Your task to perform on an android device: Go to sound settings Image 0: 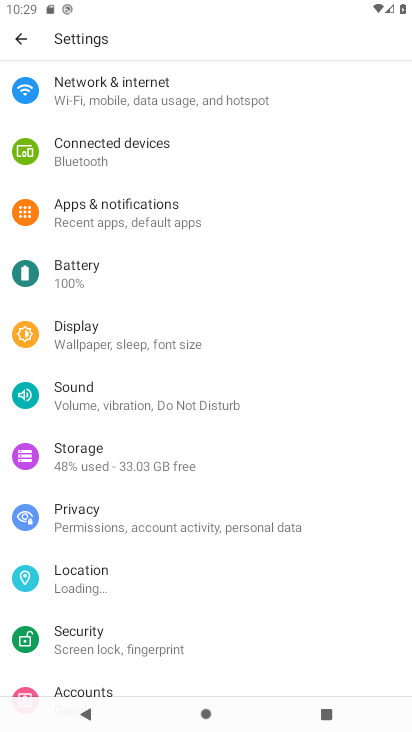
Step 0: press back button
Your task to perform on an android device: Go to sound settings Image 1: 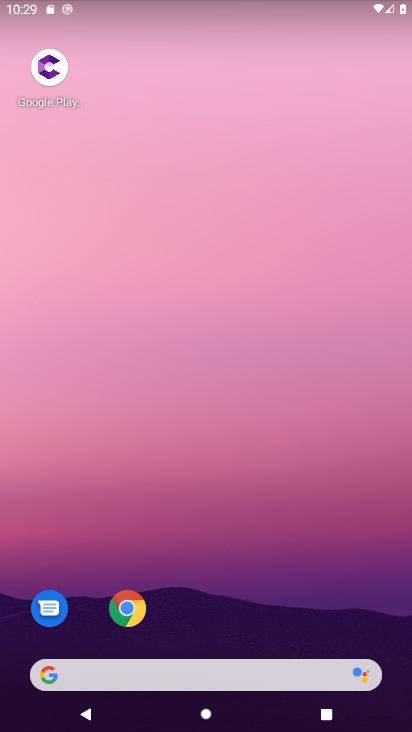
Step 1: drag from (261, 601) to (176, 150)
Your task to perform on an android device: Go to sound settings Image 2: 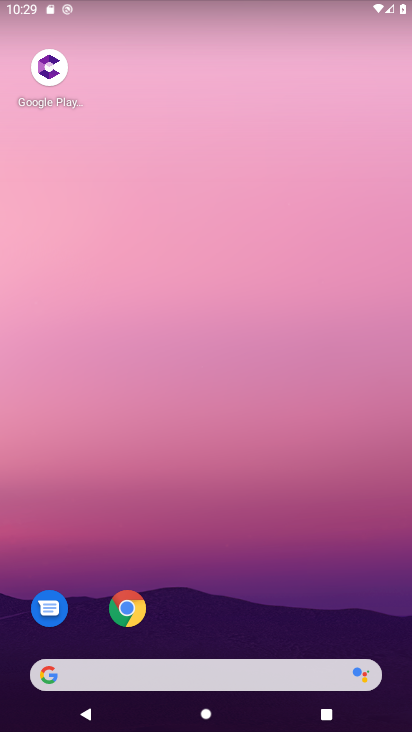
Step 2: drag from (235, 501) to (132, 12)
Your task to perform on an android device: Go to sound settings Image 3: 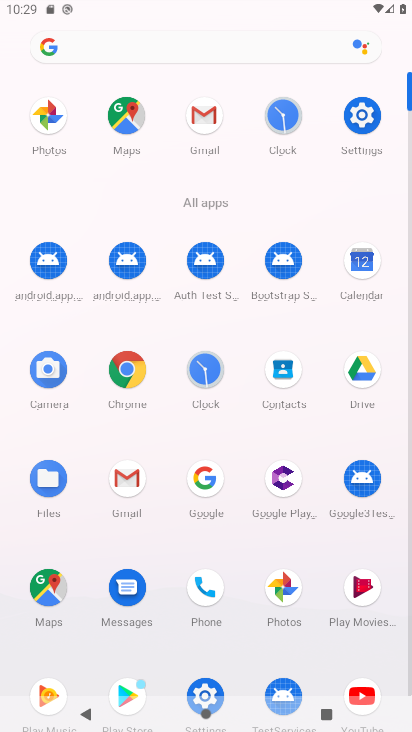
Step 3: drag from (163, 199) to (261, 37)
Your task to perform on an android device: Go to sound settings Image 4: 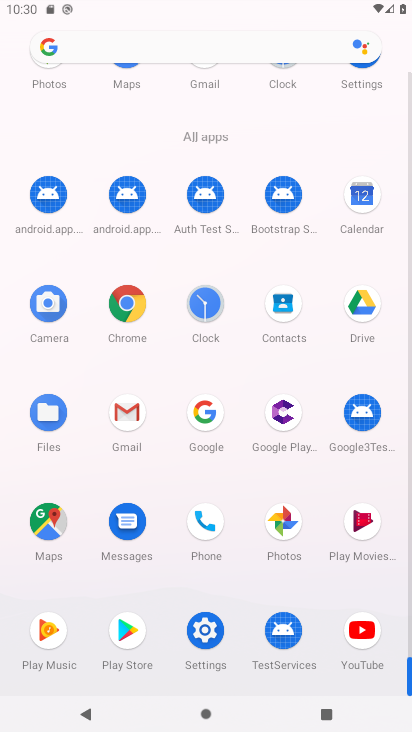
Step 4: click (215, 629)
Your task to perform on an android device: Go to sound settings Image 5: 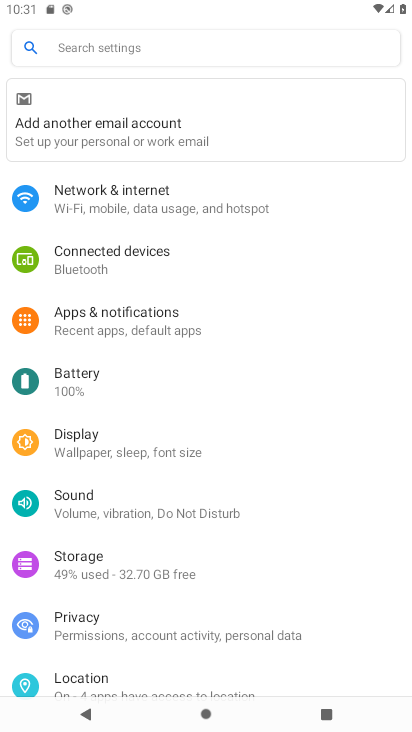
Step 5: click (76, 497)
Your task to perform on an android device: Go to sound settings Image 6: 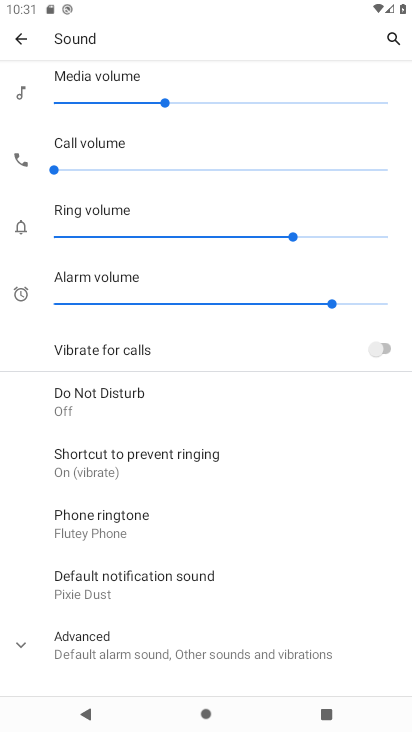
Step 6: click (82, 501)
Your task to perform on an android device: Go to sound settings Image 7: 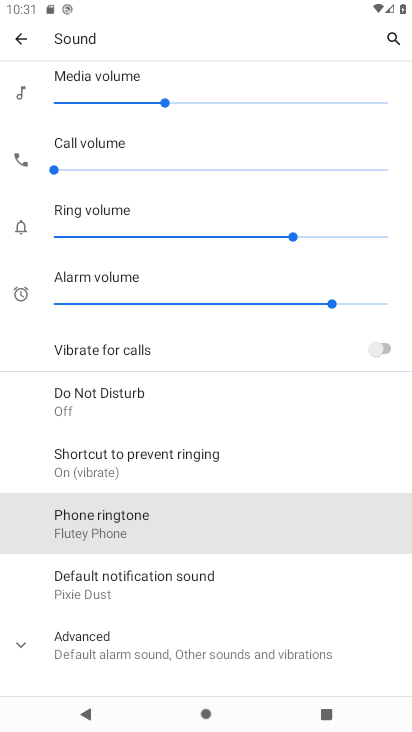
Step 7: click (85, 486)
Your task to perform on an android device: Go to sound settings Image 8: 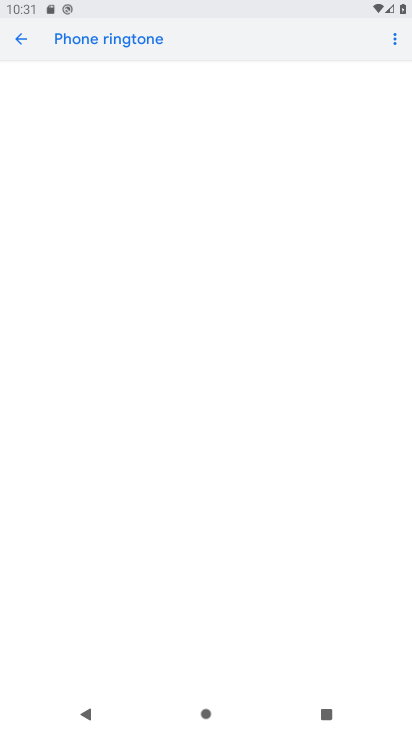
Step 8: click (85, 486)
Your task to perform on an android device: Go to sound settings Image 9: 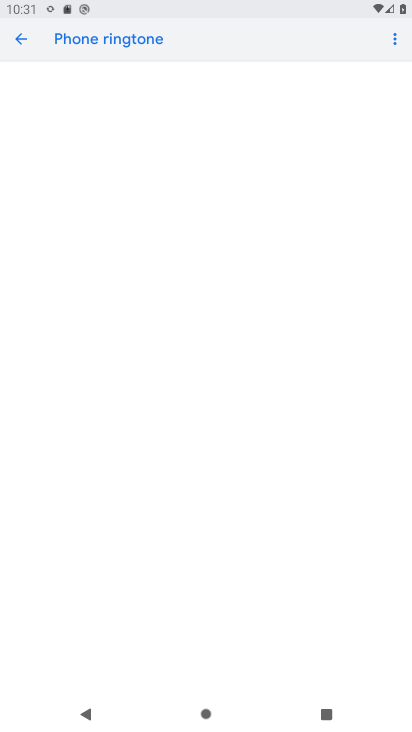
Step 9: click (82, 487)
Your task to perform on an android device: Go to sound settings Image 10: 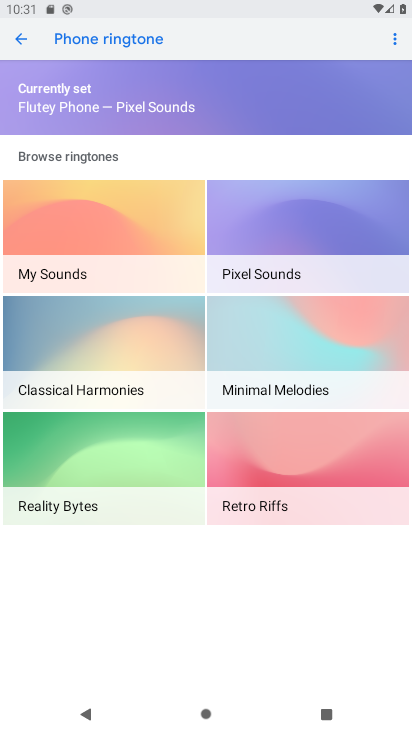
Step 10: click (61, 491)
Your task to perform on an android device: Go to sound settings Image 11: 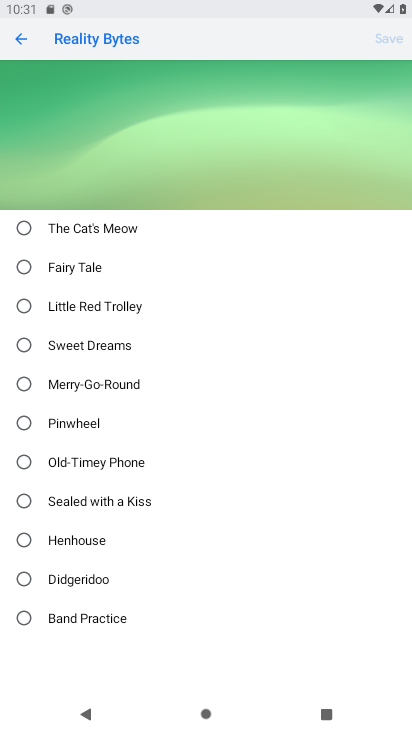
Step 11: task complete